Your task to perform on an android device: Open Android settings Image 0: 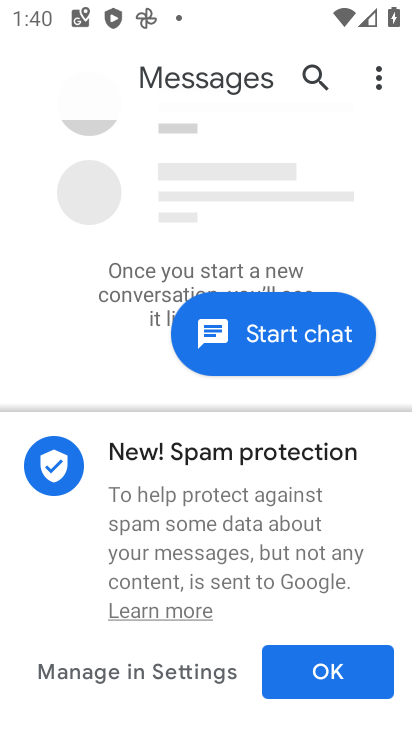
Step 0: press home button
Your task to perform on an android device: Open Android settings Image 1: 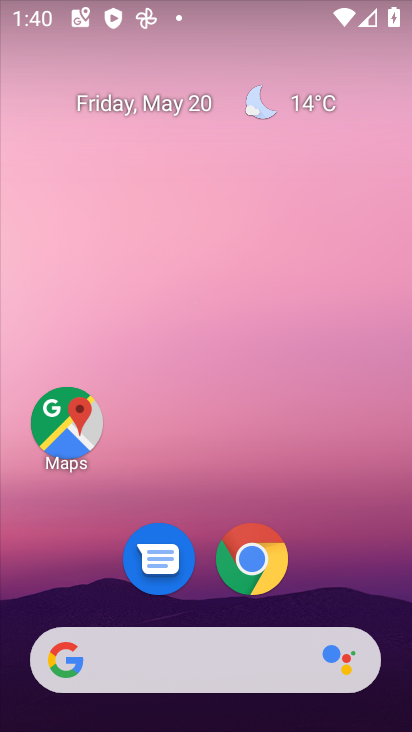
Step 1: drag from (369, 602) to (305, 47)
Your task to perform on an android device: Open Android settings Image 2: 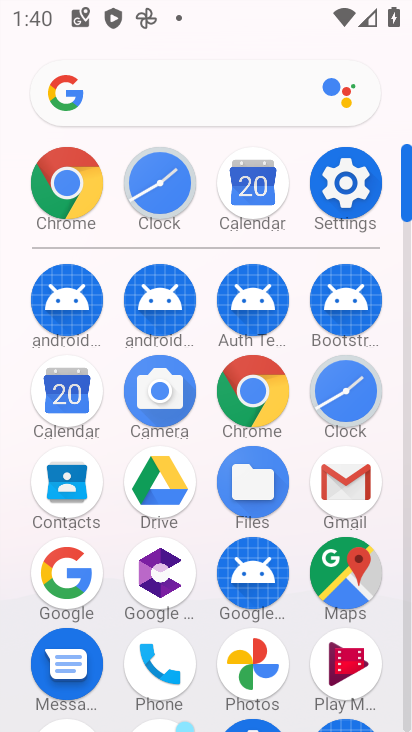
Step 2: click (363, 205)
Your task to perform on an android device: Open Android settings Image 3: 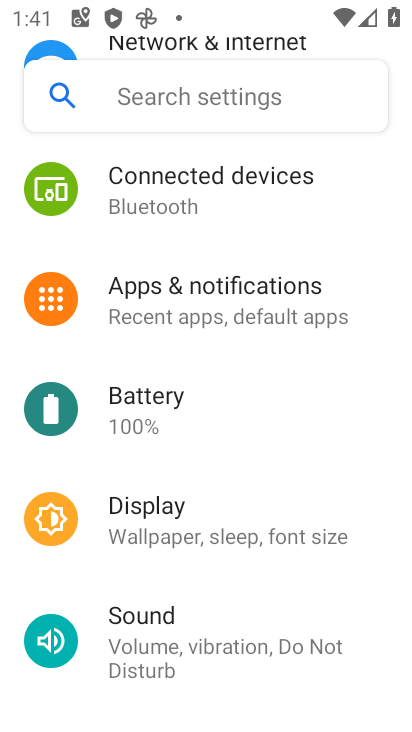
Step 3: task complete